Your task to perform on an android device: Go to internet settings Image 0: 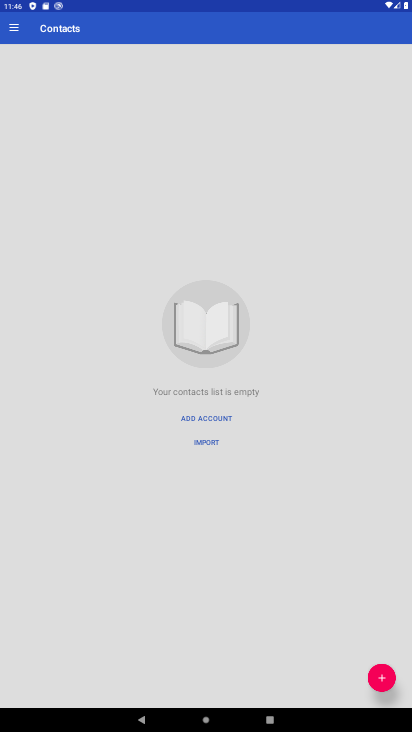
Step 0: press home button
Your task to perform on an android device: Go to internet settings Image 1: 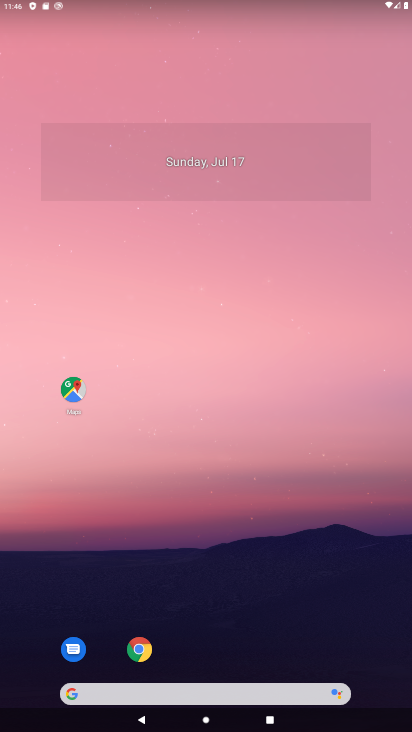
Step 1: drag from (19, 691) to (283, 130)
Your task to perform on an android device: Go to internet settings Image 2: 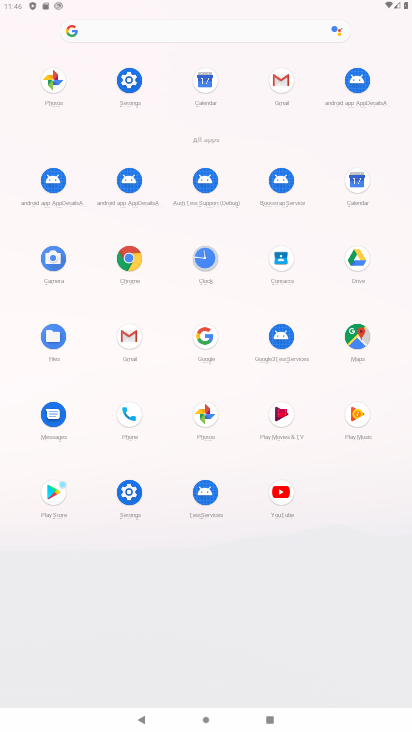
Step 2: drag from (68, 653) to (24, 651)
Your task to perform on an android device: Go to internet settings Image 3: 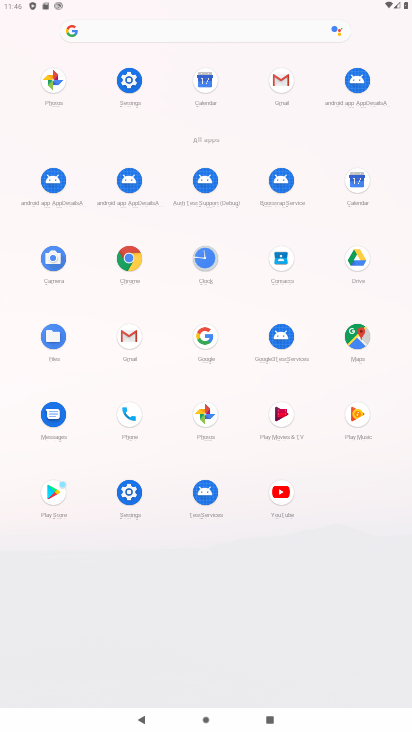
Step 3: click (122, 483)
Your task to perform on an android device: Go to internet settings Image 4: 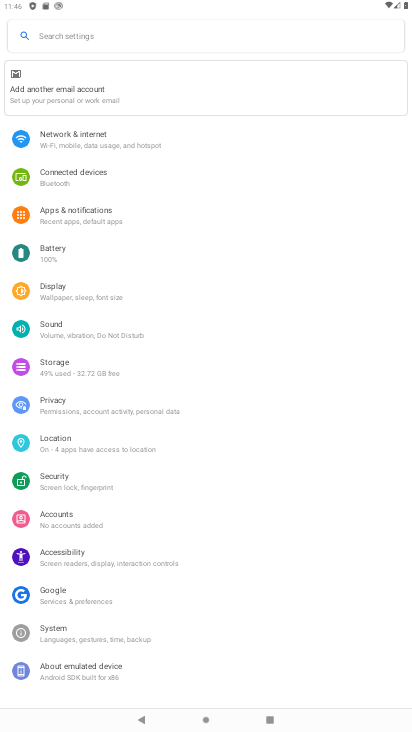
Step 4: click (83, 135)
Your task to perform on an android device: Go to internet settings Image 5: 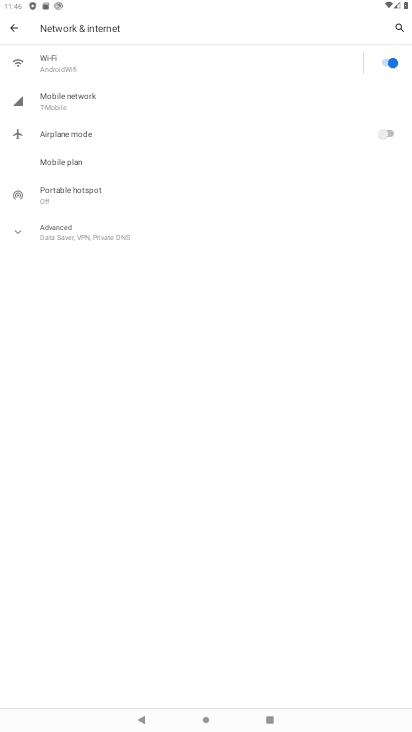
Step 5: task complete